Your task to perform on an android device: turn off notifications settings in the gmail app Image 0: 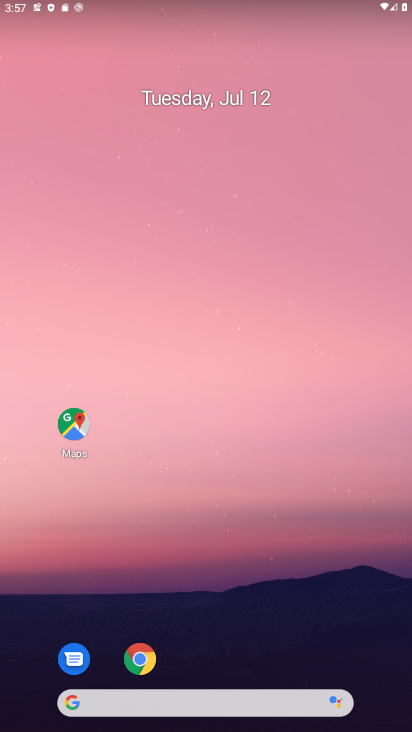
Step 0: drag from (208, 723) to (209, 201)
Your task to perform on an android device: turn off notifications settings in the gmail app Image 1: 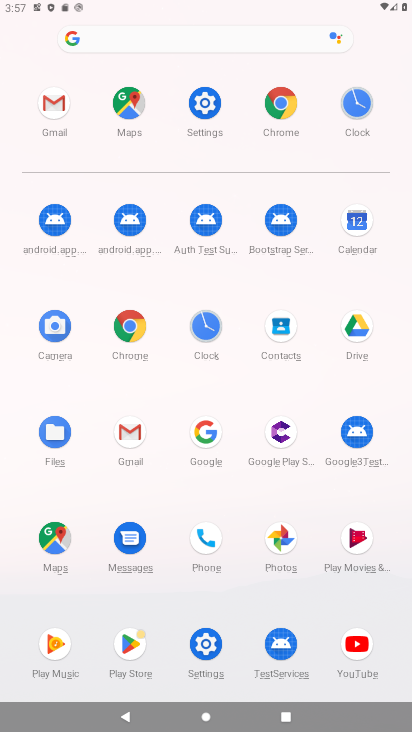
Step 1: click (122, 436)
Your task to perform on an android device: turn off notifications settings in the gmail app Image 2: 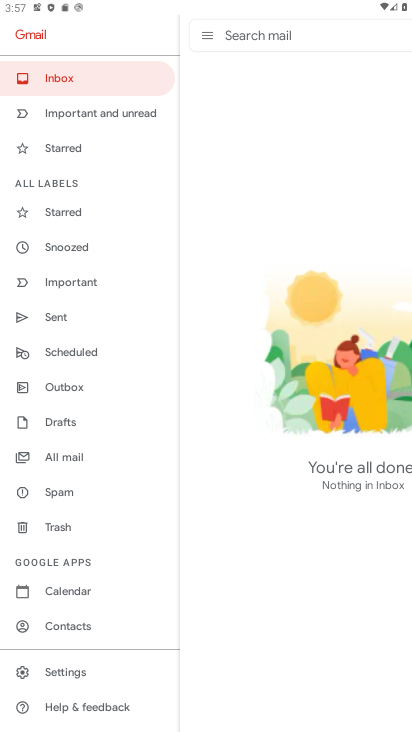
Step 2: click (81, 669)
Your task to perform on an android device: turn off notifications settings in the gmail app Image 3: 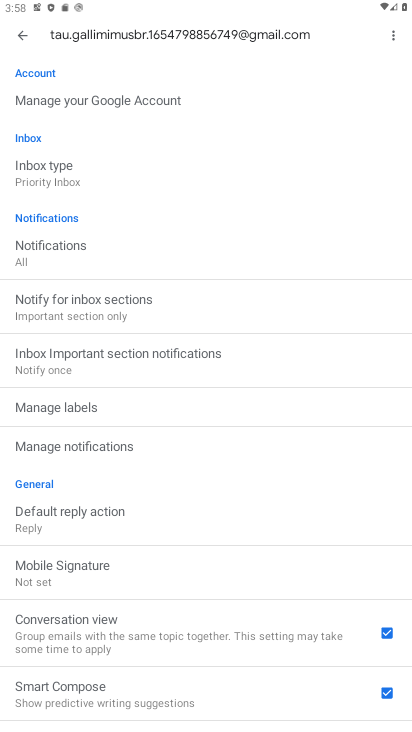
Step 3: click (42, 249)
Your task to perform on an android device: turn off notifications settings in the gmail app Image 4: 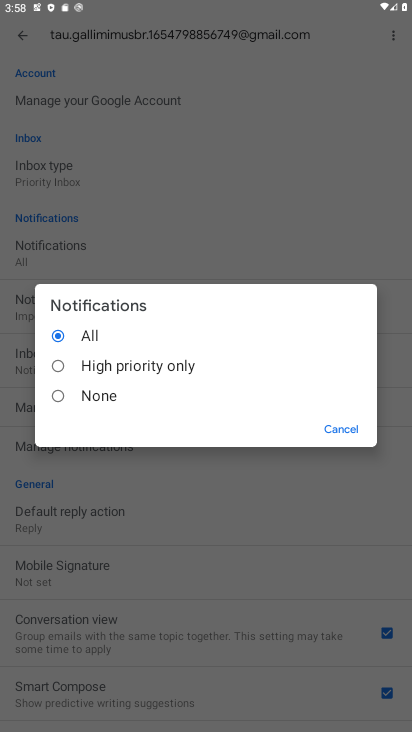
Step 4: click (56, 389)
Your task to perform on an android device: turn off notifications settings in the gmail app Image 5: 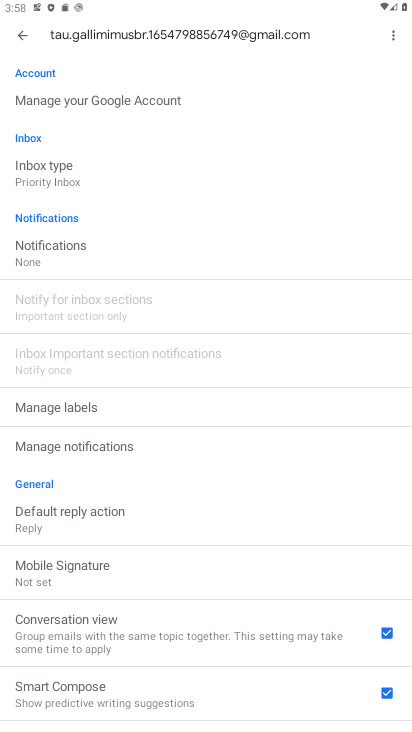
Step 5: task complete